Your task to perform on an android device: Open the phone app and click the voicemail tab. Image 0: 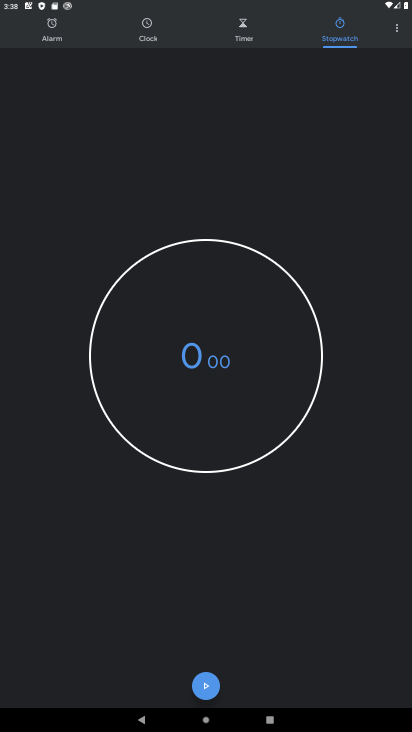
Step 0: press home button
Your task to perform on an android device: Open the phone app and click the voicemail tab. Image 1: 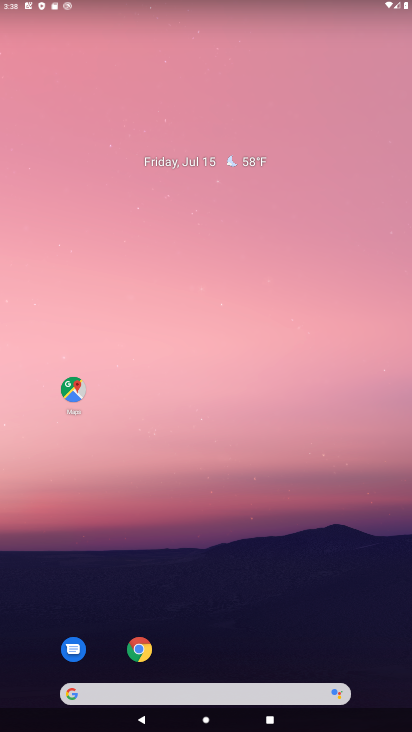
Step 1: drag from (229, 685) to (208, 42)
Your task to perform on an android device: Open the phone app and click the voicemail tab. Image 2: 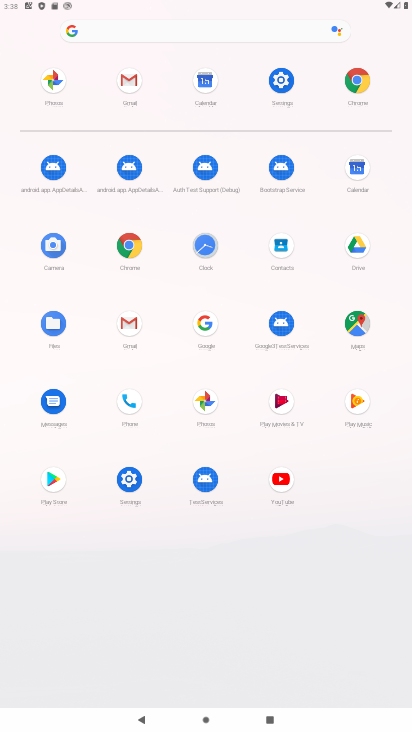
Step 2: click (137, 404)
Your task to perform on an android device: Open the phone app and click the voicemail tab. Image 3: 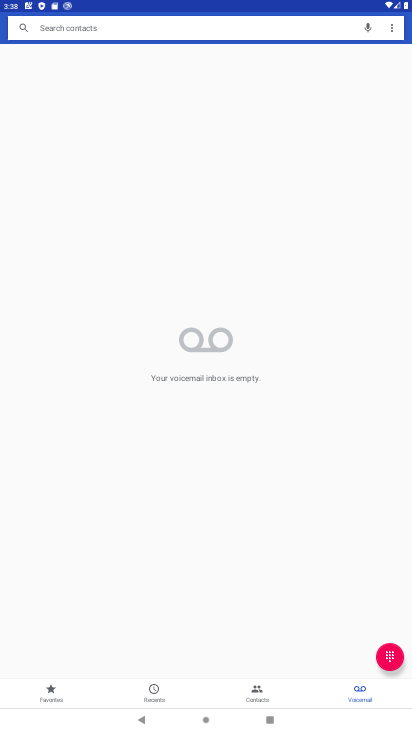
Step 3: task complete